Your task to perform on an android device: Open Maps and search for coffee Image 0: 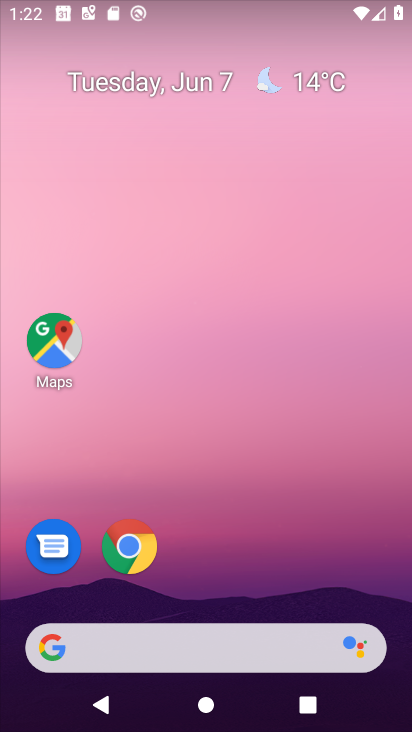
Step 0: click (58, 348)
Your task to perform on an android device: Open Maps and search for coffee Image 1: 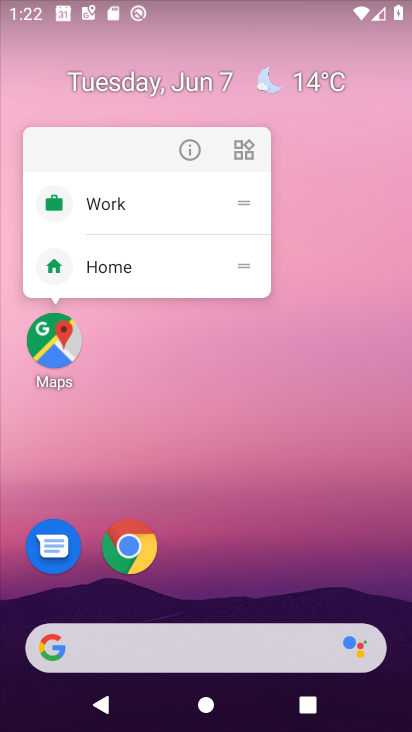
Step 1: click (63, 335)
Your task to perform on an android device: Open Maps and search for coffee Image 2: 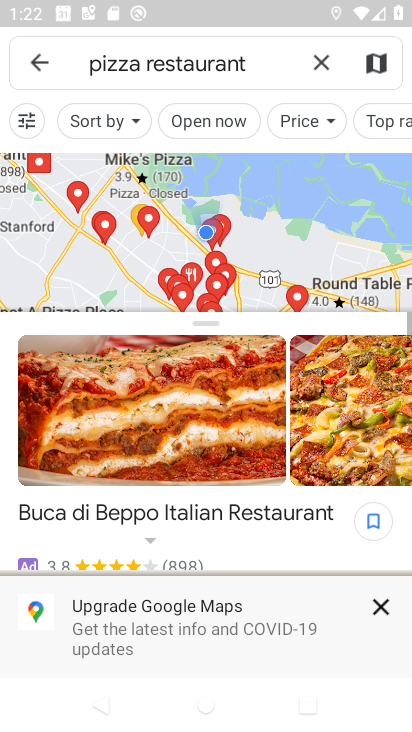
Step 2: click (321, 61)
Your task to perform on an android device: Open Maps and search for coffee Image 3: 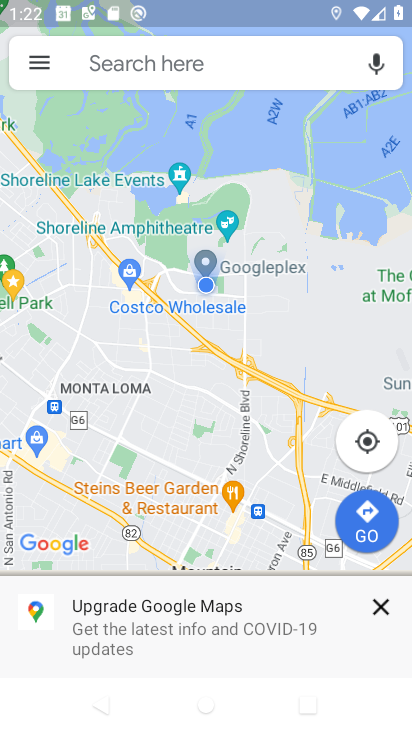
Step 3: click (129, 71)
Your task to perform on an android device: Open Maps and search for coffee Image 4: 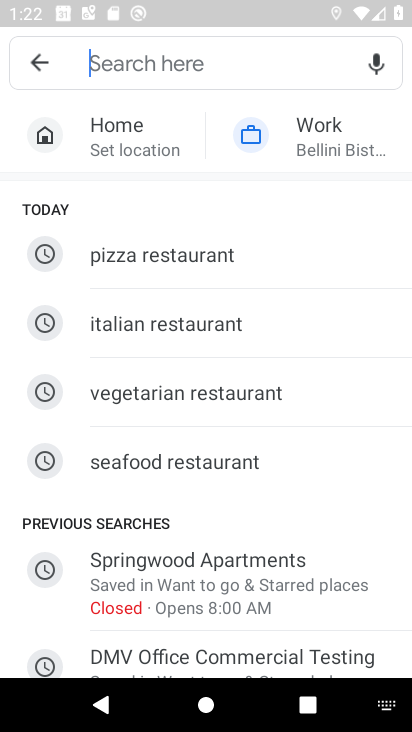
Step 4: type "coffee"
Your task to perform on an android device: Open Maps and search for coffee Image 5: 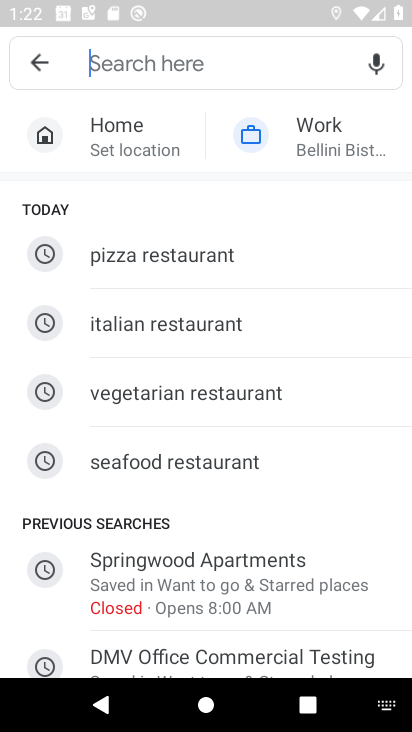
Step 5: click (192, 65)
Your task to perform on an android device: Open Maps and search for coffee Image 6: 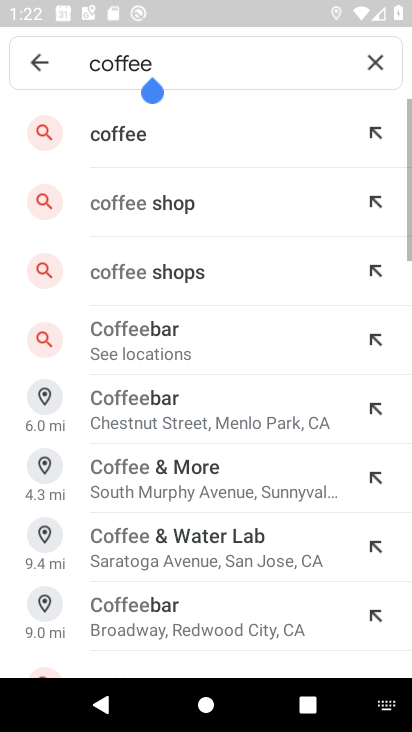
Step 6: click (111, 126)
Your task to perform on an android device: Open Maps and search for coffee Image 7: 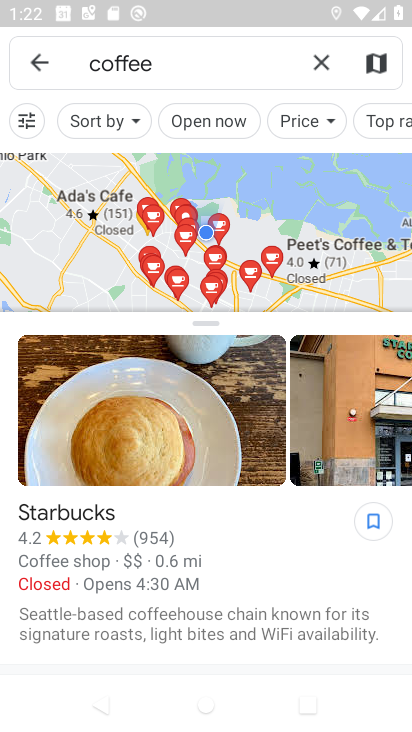
Step 7: task complete